Your task to perform on an android device: Show me recent news Image 0: 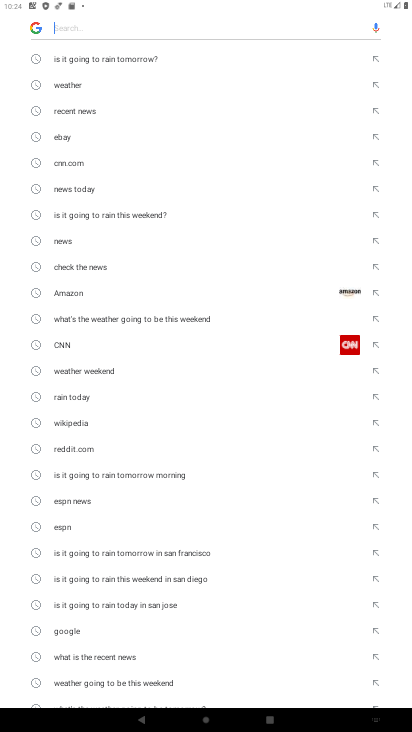
Step 0: press home button
Your task to perform on an android device: Show me recent news Image 1: 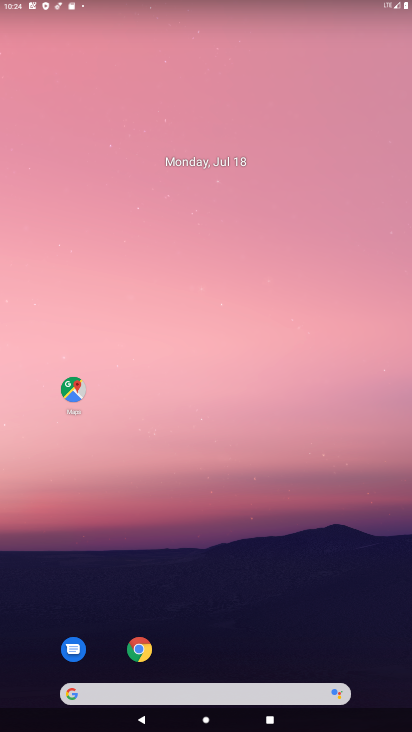
Step 1: click (220, 700)
Your task to perform on an android device: Show me recent news Image 2: 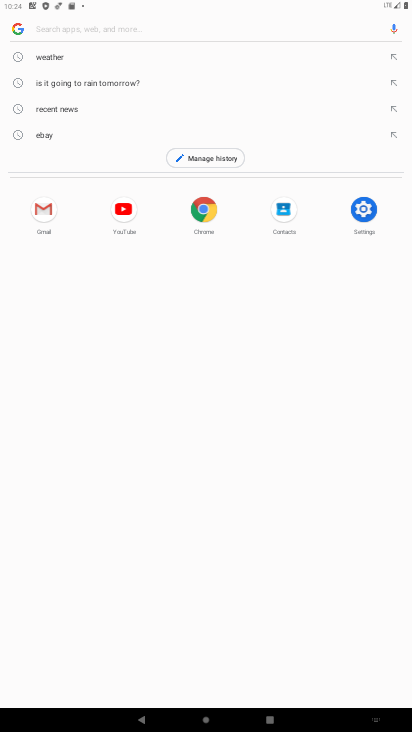
Step 2: click (32, 105)
Your task to perform on an android device: Show me recent news Image 3: 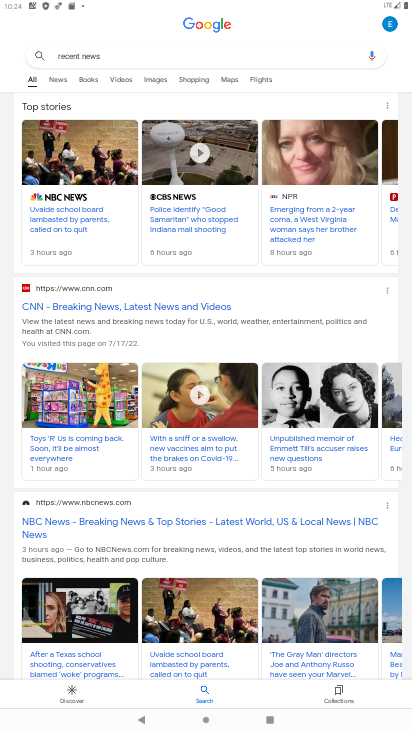
Step 3: task complete